Your task to perform on an android device: Open calendar and show me the fourth week of next month Image 0: 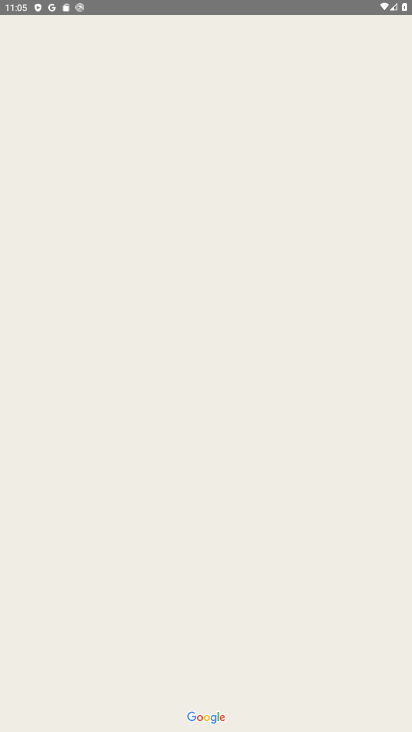
Step 0: click (267, 236)
Your task to perform on an android device: Open calendar and show me the fourth week of next month Image 1: 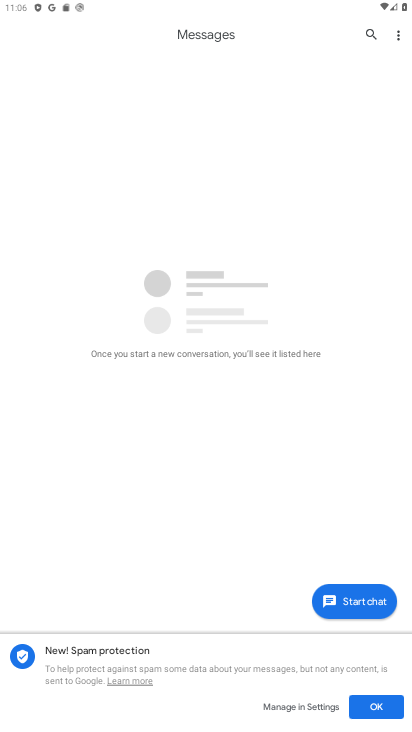
Step 1: press home button
Your task to perform on an android device: Open calendar and show me the fourth week of next month Image 2: 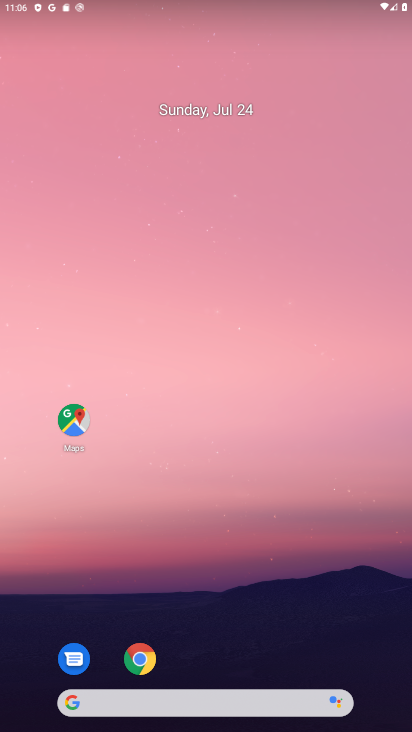
Step 2: drag from (161, 629) to (180, 207)
Your task to perform on an android device: Open calendar and show me the fourth week of next month Image 3: 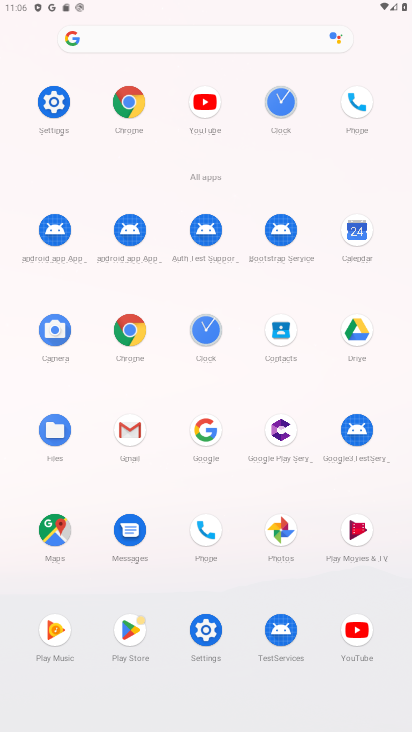
Step 3: click (348, 218)
Your task to perform on an android device: Open calendar and show me the fourth week of next month Image 4: 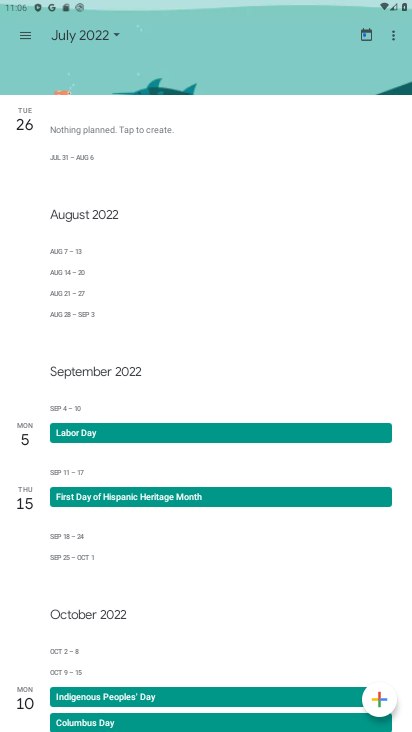
Step 4: click (28, 37)
Your task to perform on an android device: Open calendar and show me the fourth week of next month Image 5: 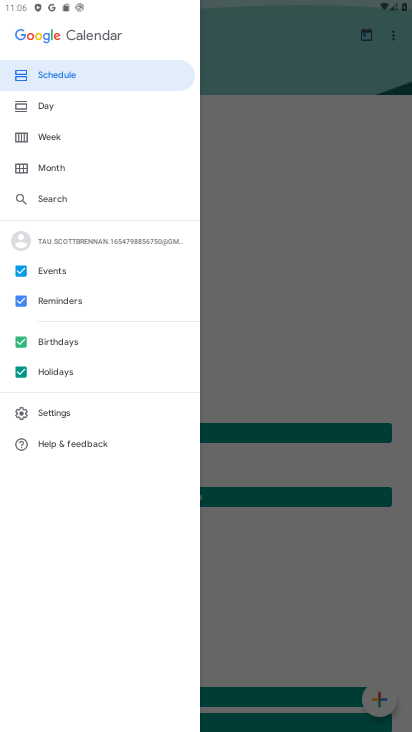
Step 5: click (51, 175)
Your task to perform on an android device: Open calendar and show me the fourth week of next month Image 6: 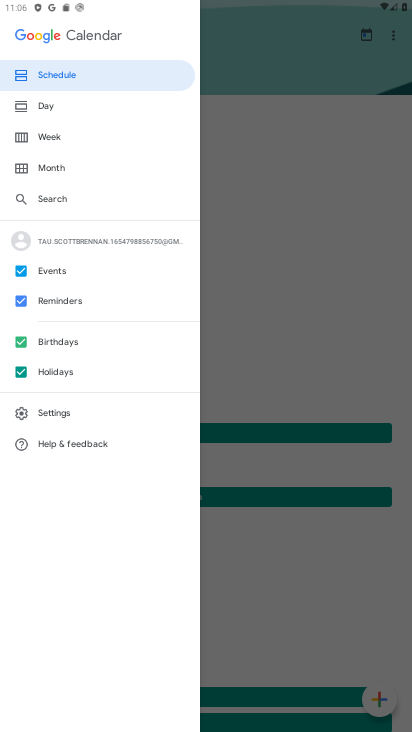
Step 6: click (52, 185)
Your task to perform on an android device: Open calendar and show me the fourth week of next month Image 7: 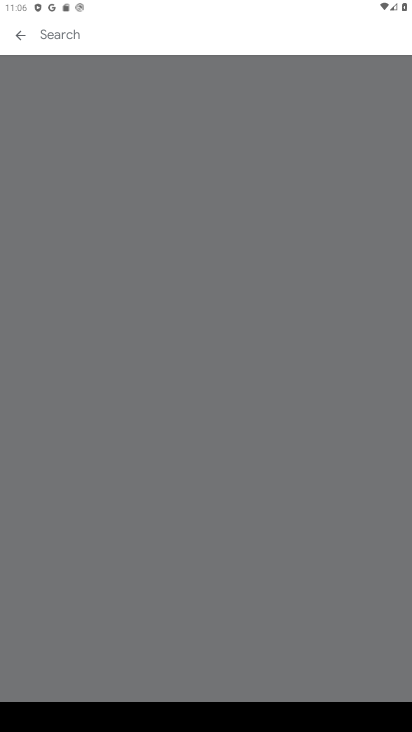
Step 7: drag from (119, 292) to (3, 383)
Your task to perform on an android device: Open calendar and show me the fourth week of next month Image 8: 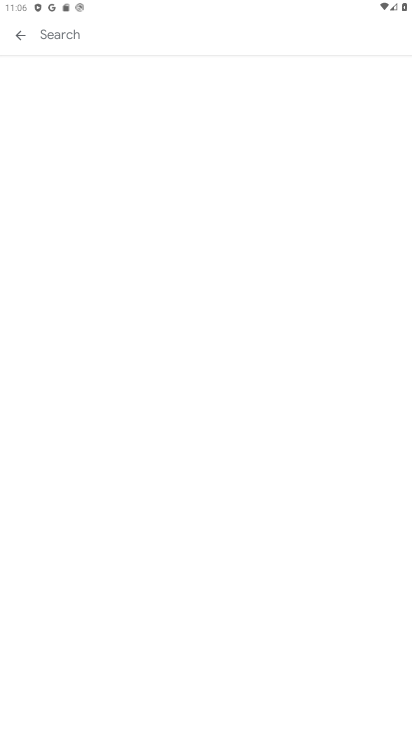
Step 8: click (24, 30)
Your task to perform on an android device: Open calendar and show me the fourth week of next month Image 9: 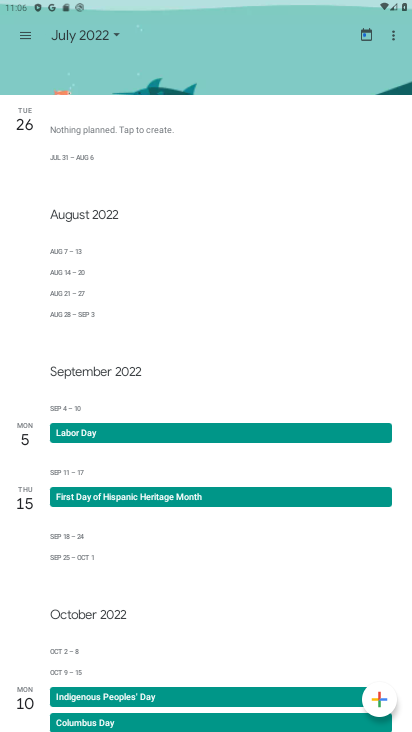
Step 9: click (32, 38)
Your task to perform on an android device: Open calendar and show me the fourth week of next month Image 10: 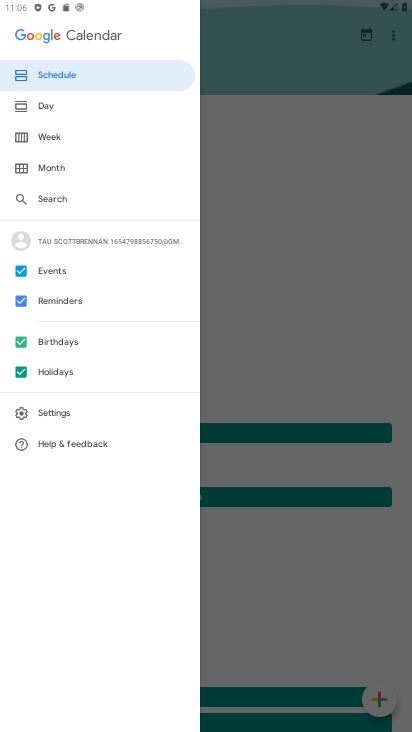
Step 10: click (55, 176)
Your task to perform on an android device: Open calendar and show me the fourth week of next month Image 11: 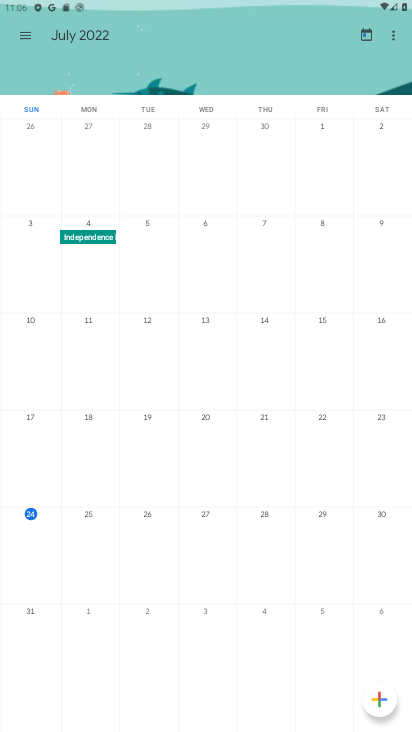
Step 11: drag from (236, 403) to (9, 28)
Your task to perform on an android device: Open calendar and show me the fourth week of next month Image 12: 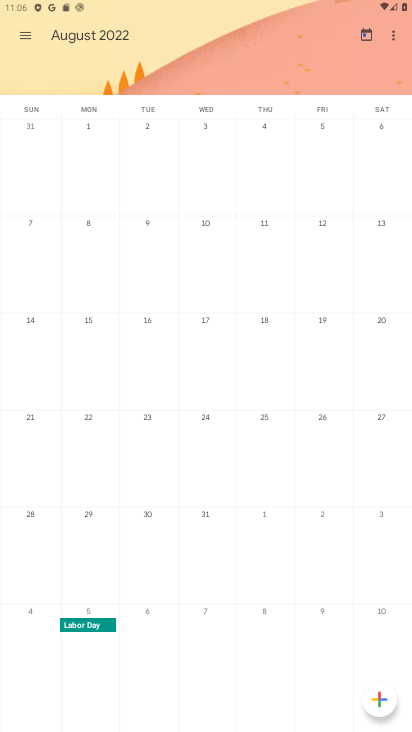
Step 12: click (15, 35)
Your task to perform on an android device: Open calendar and show me the fourth week of next month Image 13: 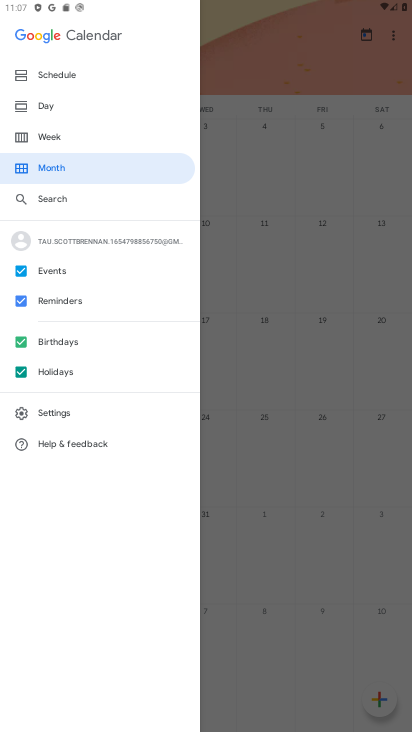
Step 13: click (81, 167)
Your task to perform on an android device: Open calendar and show me the fourth week of next month Image 14: 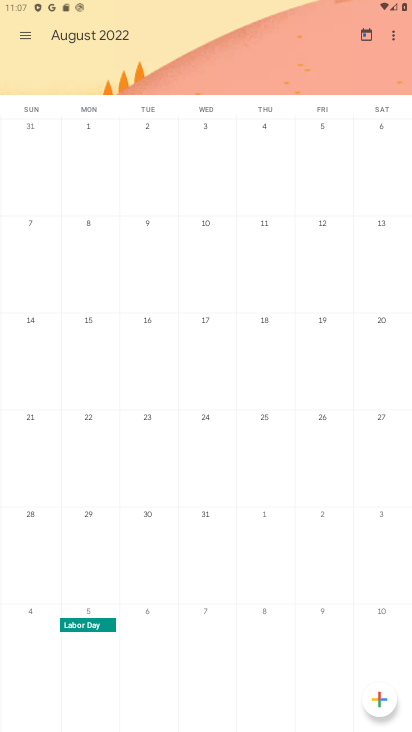
Step 14: click (30, 27)
Your task to perform on an android device: Open calendar and show me the fourth week of next month Image 15: 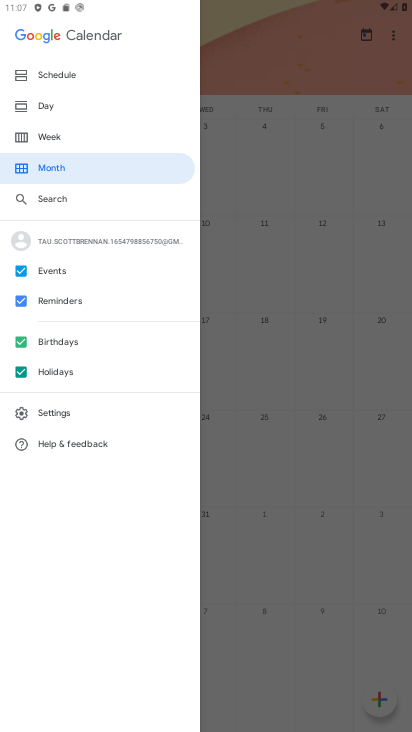
Step 15: click (59, 143)
Your task to perform on an android device: Open calendar and show me the fourth week of next month Image 16: 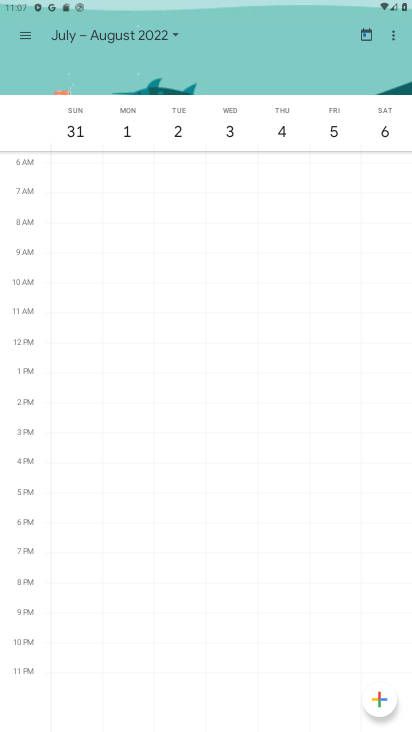
Step 16: task complete